Your task to perform on an android device: turn off location history Image 0: 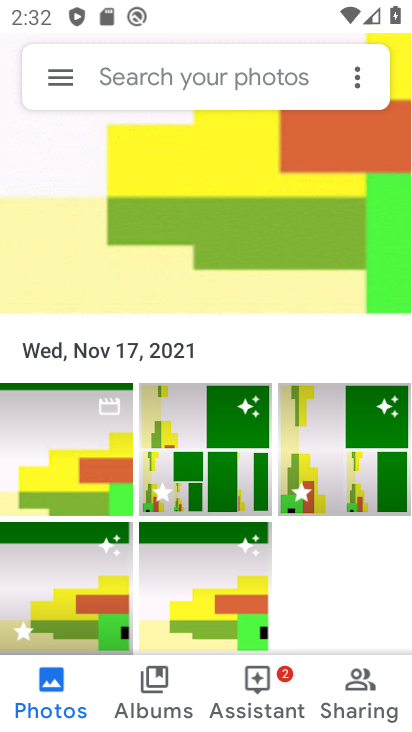
Step 0: press back button
Your task to perform on an android device: turn off location history Image 1: 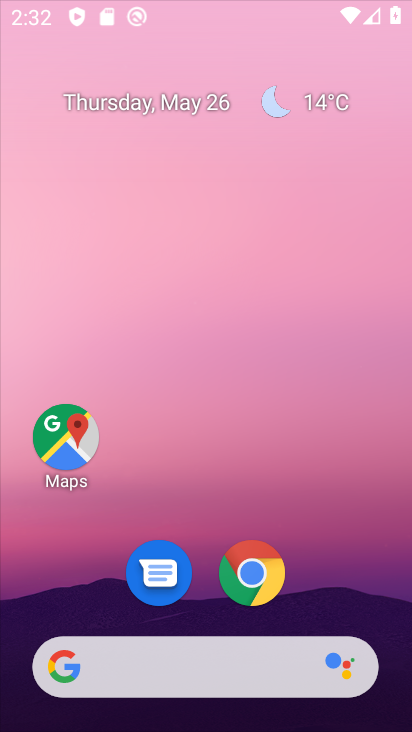
Step 1: press home button
Your task to perform on an android device: turn off location history Image 2: 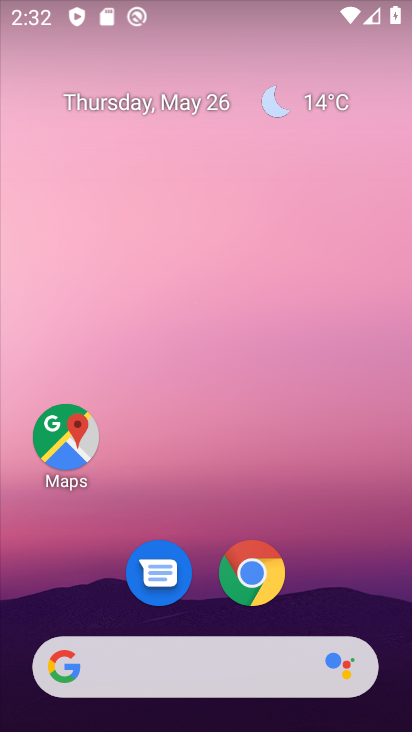
Step 2: drag from (313, 562) to (256, 22)
Your task to perform on an android device: turn off location history Image 3: 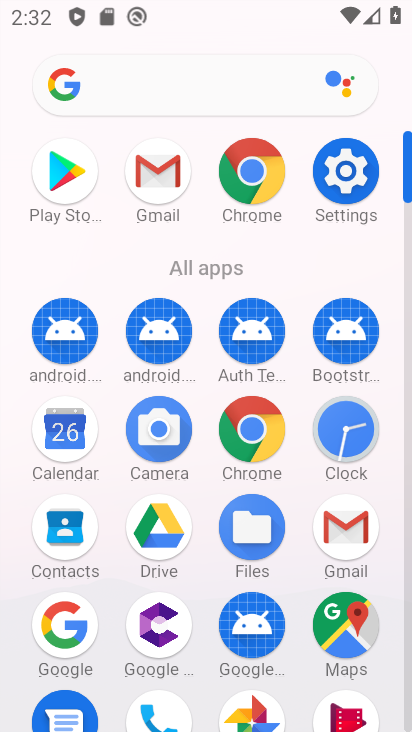
Step 3: click (346, 163)
Your task to perform on an android device: turn off location history Image 4: 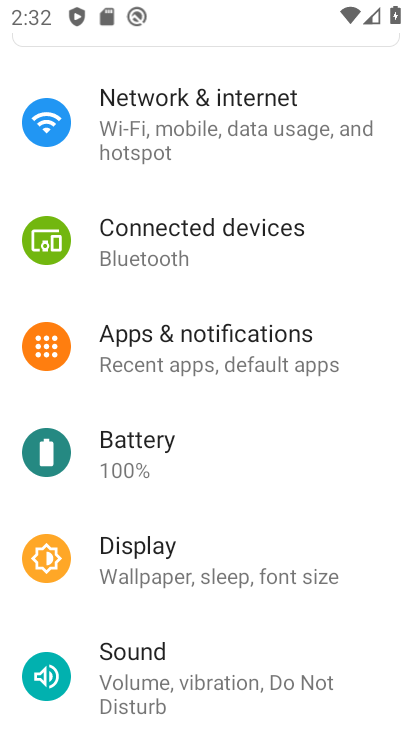
Step 4: drag from (240, 604) to (215, 124)
Your task to perform on an android device: turn off location history Image 5: 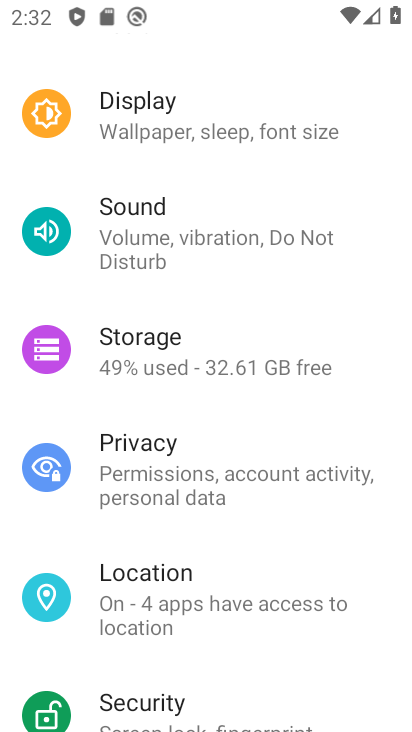
Step 5: click (165, 589)
Your task to perform on an android device: turn off location history Image 6: 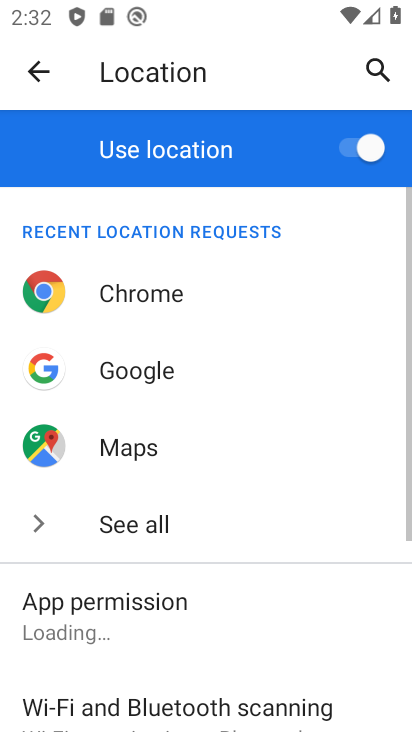
Step 6: drag from (246, 600) to (231, 196)
Your task to perform on an android device: turn off location history Image 7: 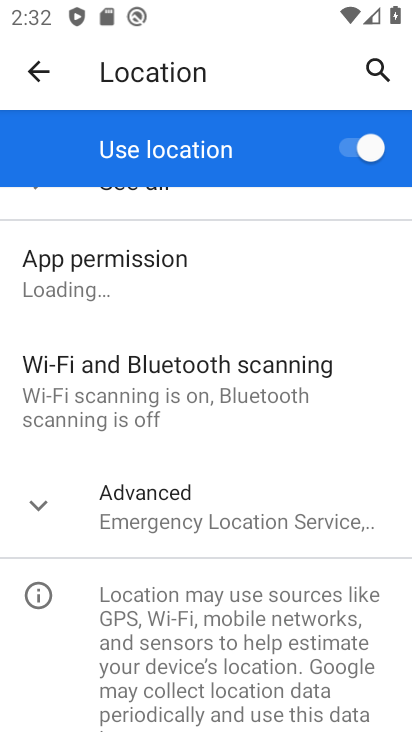
Step 7: click (154, 521)
Your task to perform on an android device: turn off location history Image 8: 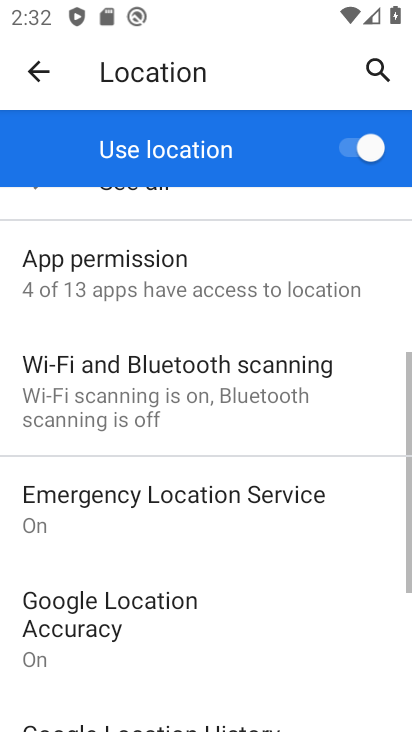
Step 8: drag from (290, 589) to (260, 248)
Your task to perform on an android device: turn off location history Image 9: 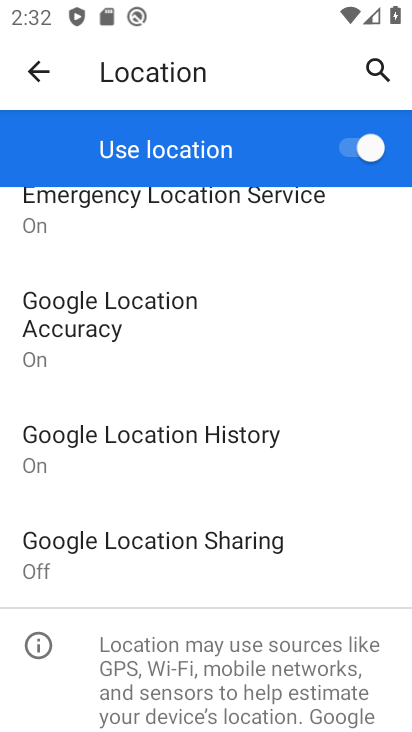
Step 9: click (192, 443)
Your task to perform on an android device: turn off location history Image 10: 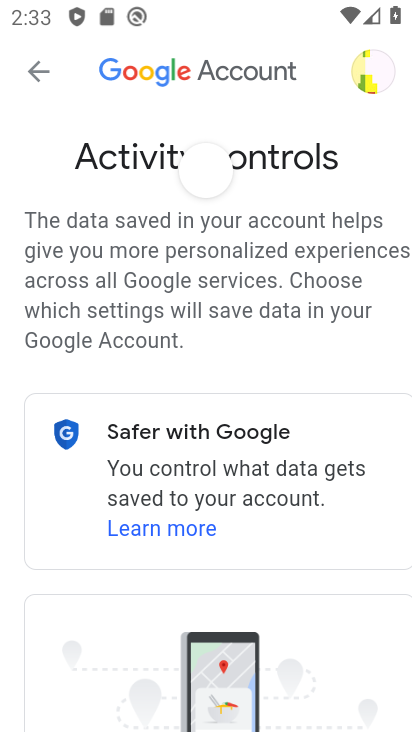
Step 10: drag from (269, 571) to (192, 157)
Your task to perform on an android device: turn off location history Image 11: 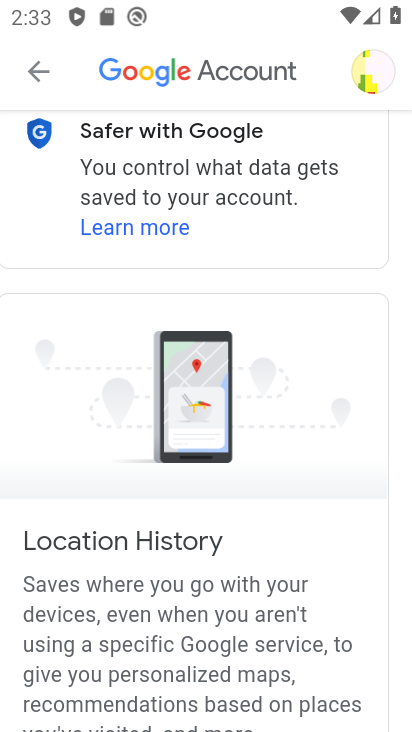
Step 11: drag from (260, 635) to (244, 139)
Your task to perform on an android device: turn off location history Image 12: 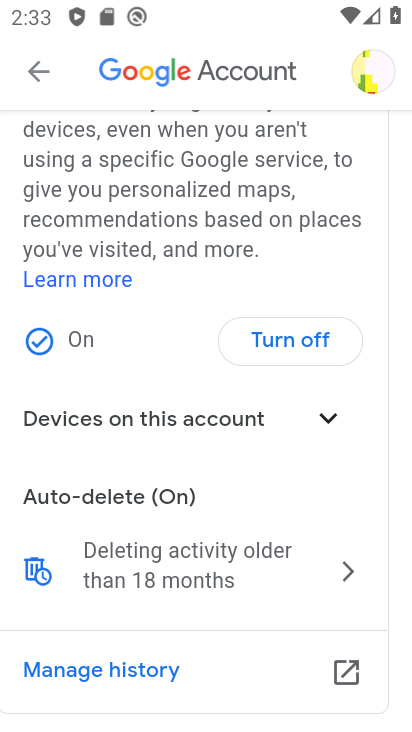
Step 12: click (267, 329)
Your task to perform on an android device: turn off location history Image 13: 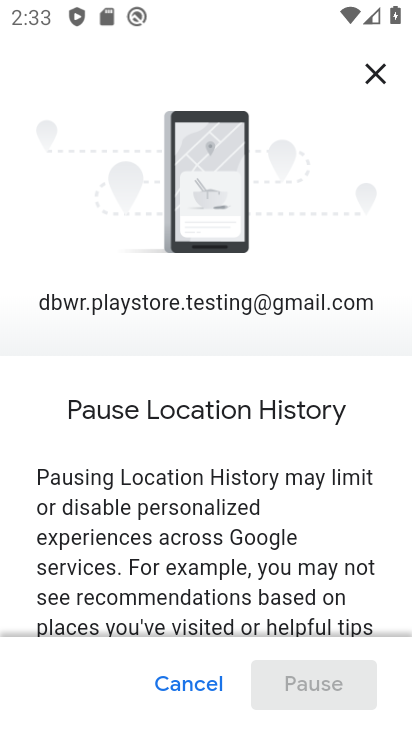
Step 13: drag from (267, 608) to (243, 163)
Your task to perform on an android device: turn off location history Image 14: 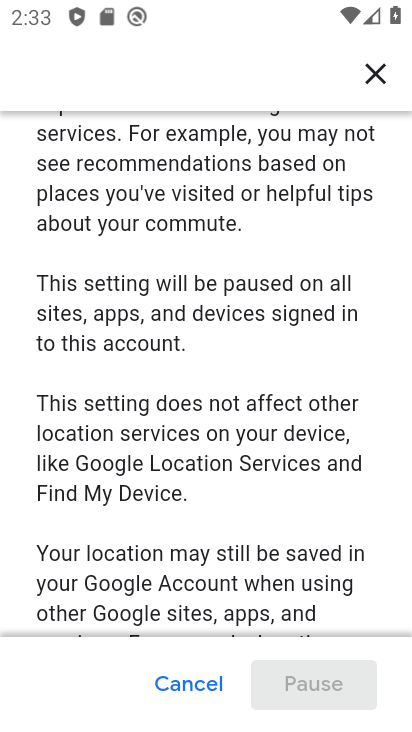
Step 14: drag from (251, 527) to (245, 134)
Your task to perform on an android device: turn off location history Image 15: 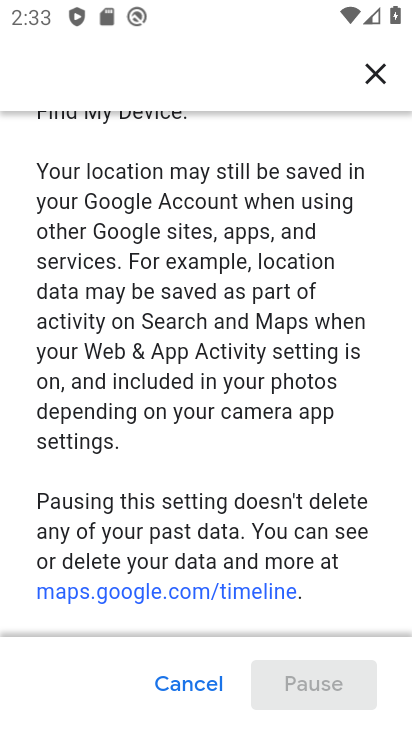
Step 15: drag from (213, 501) to (212, 117)
Your task to perform on an android device: turn off location history Image 16: 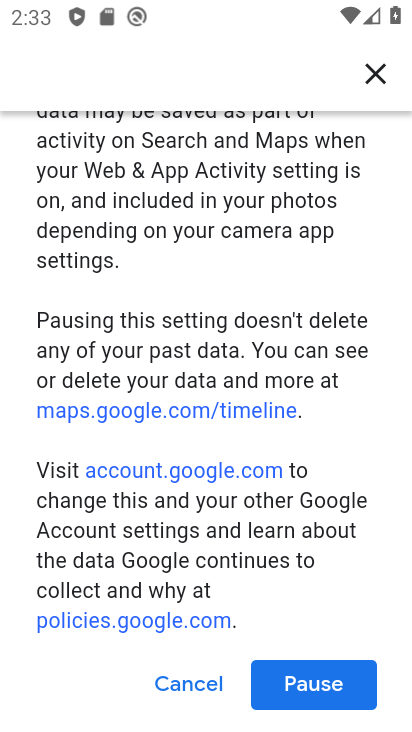
Step 16: click (321, 688)
Your task to perform on an android device: turn off location history Image 17: 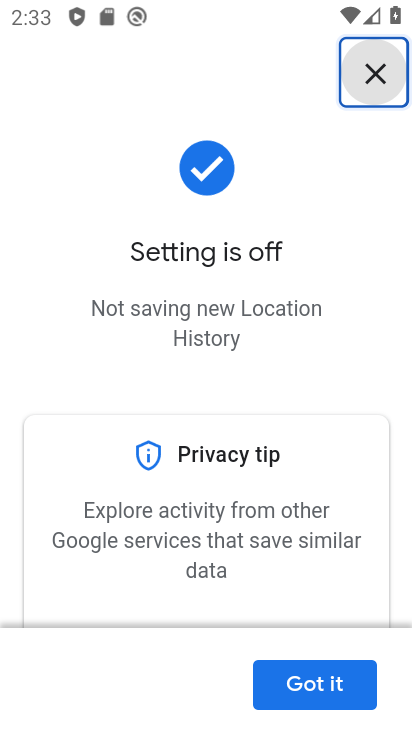
Step 17: task complete